Your task to perform on an android device: Open settings Image 0: 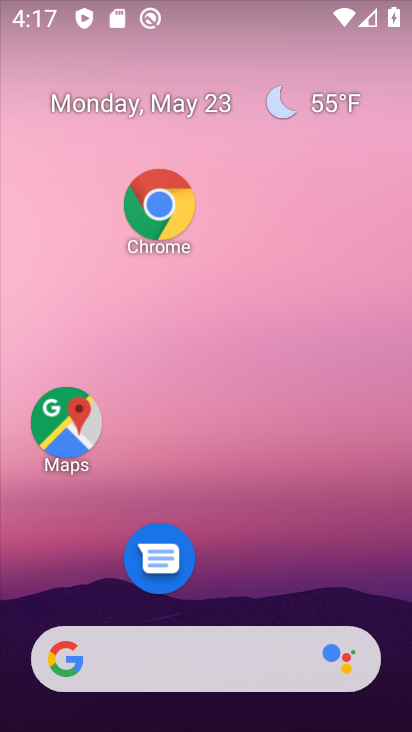
Step 0: drag from (212, 578) to (179, 5)
Your task to perform on an android device: Open settings Image 1: 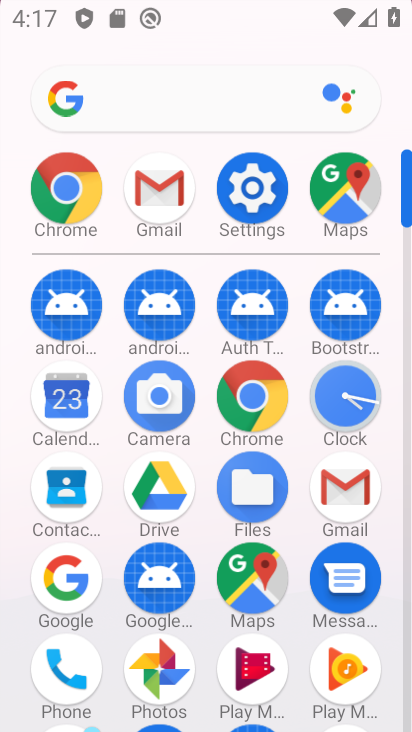
Step 1: click (253, 39)
Your task to perform on an android device: Open settings Image 2: 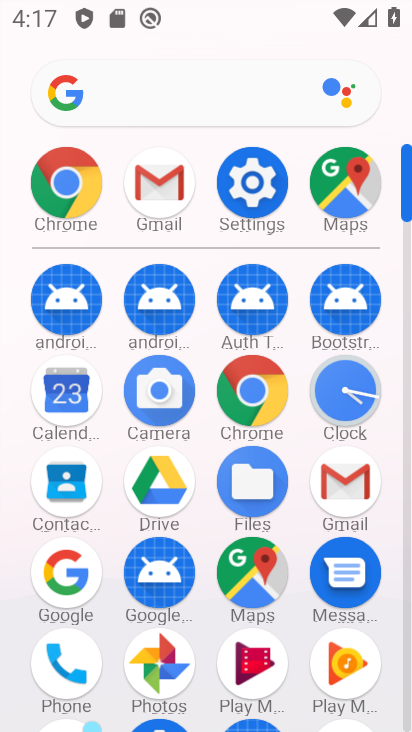
Step 2: drag from (271, 531) to (239, 6)
Your task to perform on an android device: Open settings Image 3: 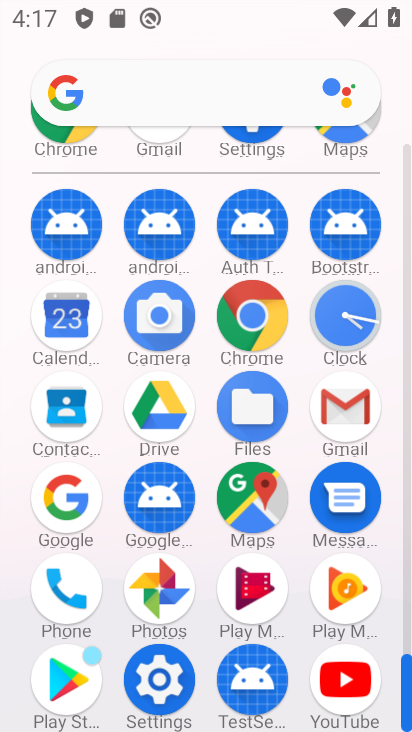
Step 3: click (148, 679)
Your task to perform on an android device: Open settings Image 4: 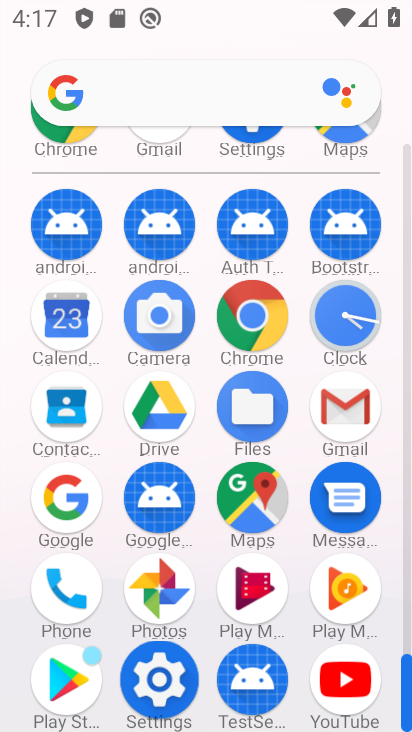
Step 4: click (149, 678)
Your task to perform on an android device: Open settings Image 5: 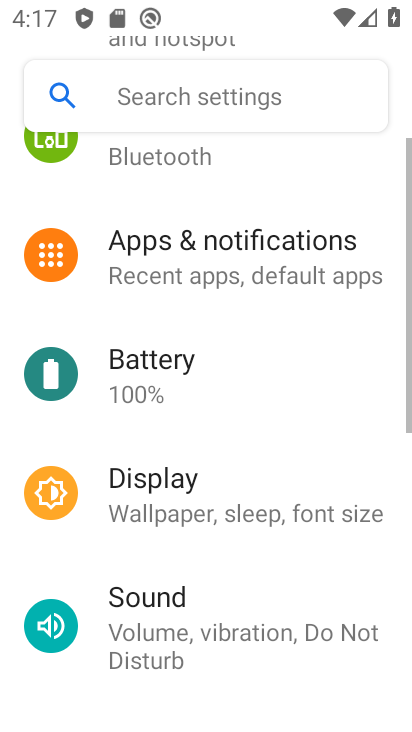
Step 5: click (151, 678)
Your task to perform on an android device: Open settings Image 6: 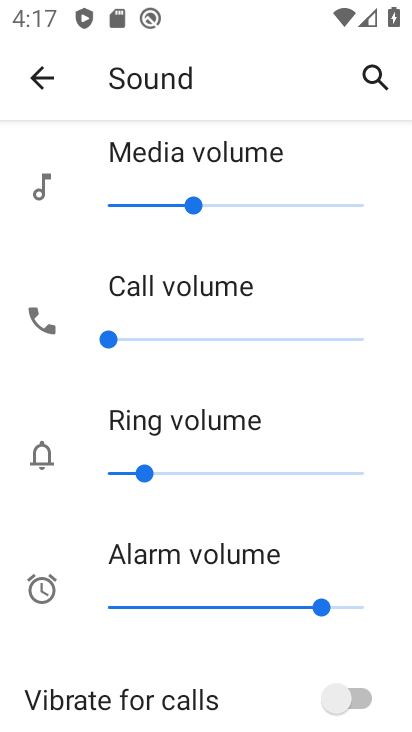
Step 6: drag from (221, 539) to (222, 189)
Your task to perform on an android device: Open settings Image 7: 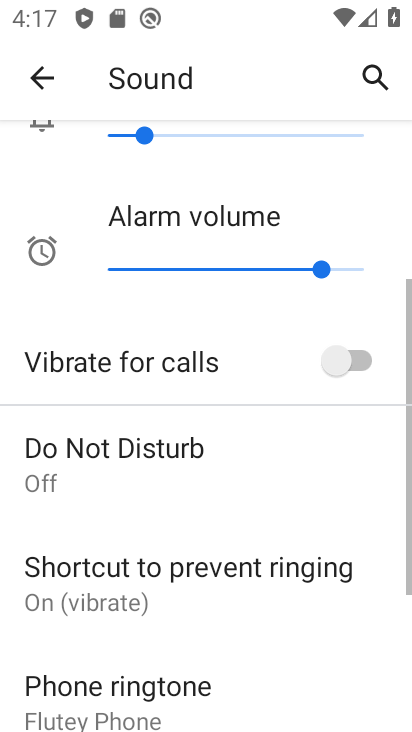
Step 7: drag from (236, 505) to (234, 136)
Your task to perform on an android device: Open settings Image 8: 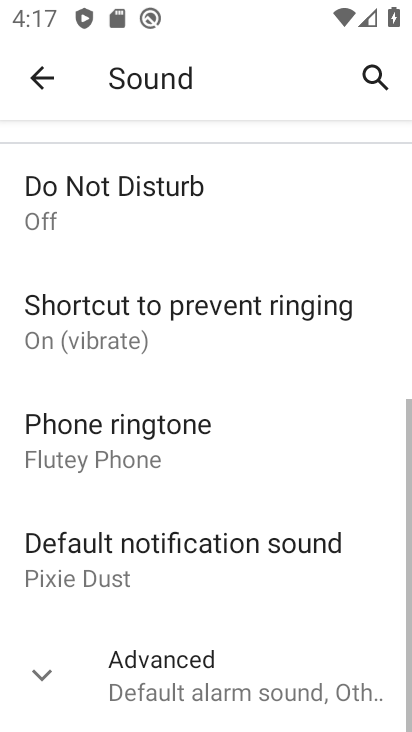
Step 8: drag from (226, 515) to (236, 127)
Your task to perform on an android device: Open settings Image 9: 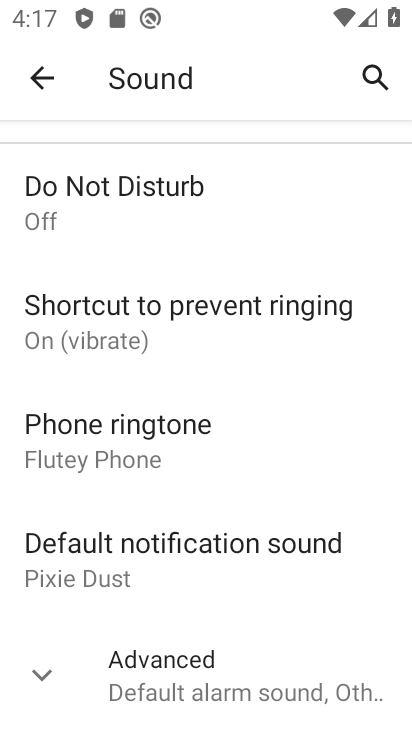
Step 9: click (30, 70)
Your task to perform on an android device: Open settings Image 10: 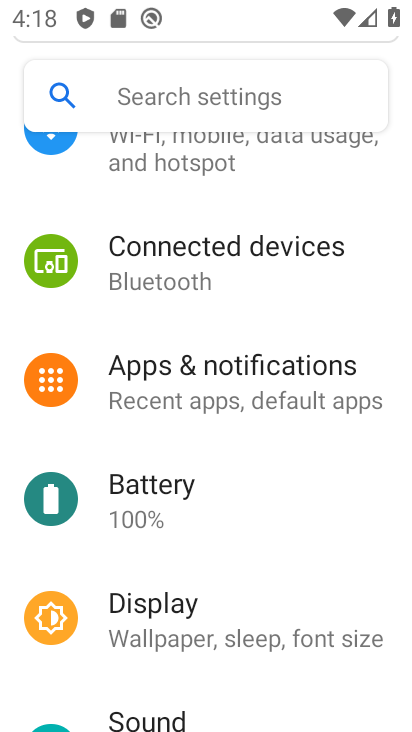
Step 10: task complete